Your task to perform on an android device: What's on my calendar tomorrow? Image 0: 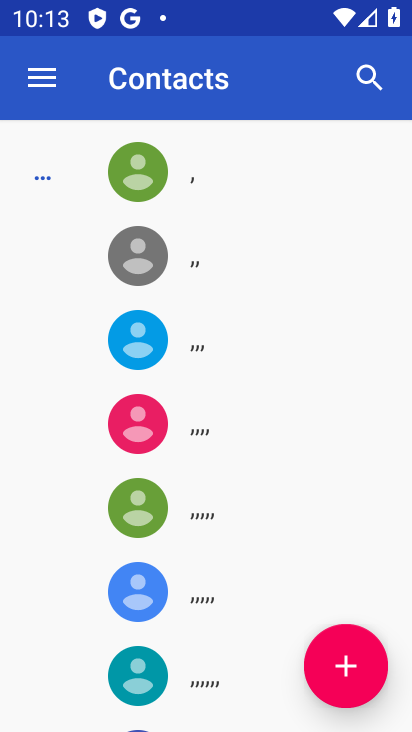
Step 0: press home button
Your task to perform on an android device: What's on my calendar tomorrow? Image 1: 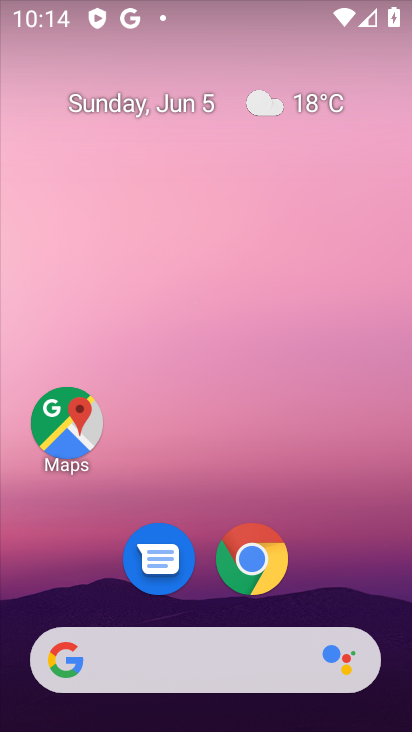
Step 1: drag from (392, 598) to (380, 46)
Your task to perform on an android device: What's on my calendar tomorrow? Image 2: 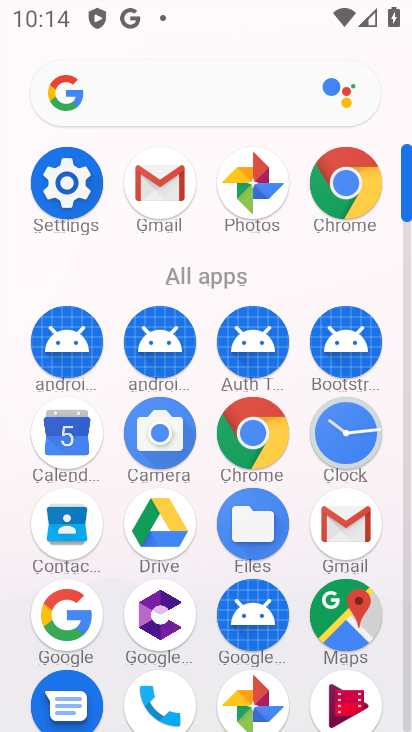
Step 2: click (71, 454)
Your task to perform on an android device: What's on my calendar tomorrow? Image 3: 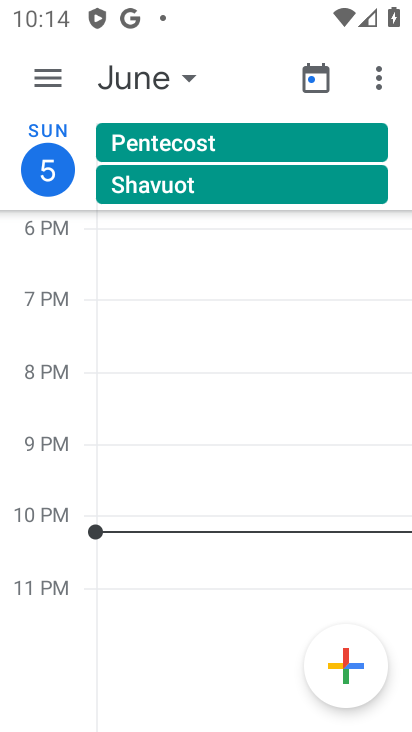
Step 3: click (173, 78)
Your task to perform on an android device: What's on my calendar tomorrow? Image 4: 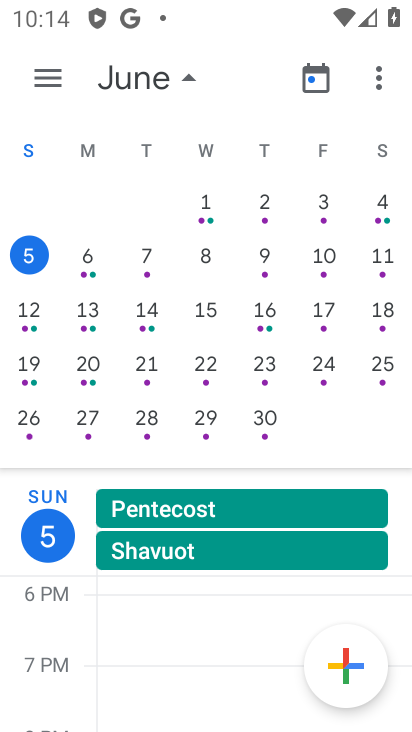
Step 4: click (86, 263)
Your task to perform on an android device: What's on my calendar tomorrow? Image 5: 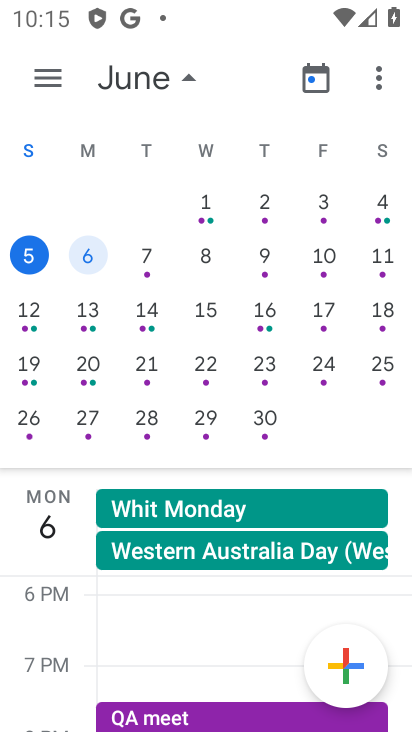
Step 5: task complete